Your task to perform on an android device: open a bookmark in the chrome app Image 0: 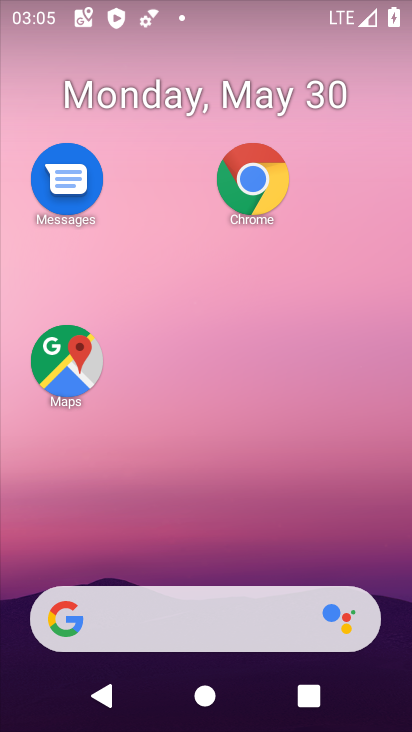
Step 0: click (246, 186)
Your task to perform on an android device: open a bookmark in the chrome app Image 1: 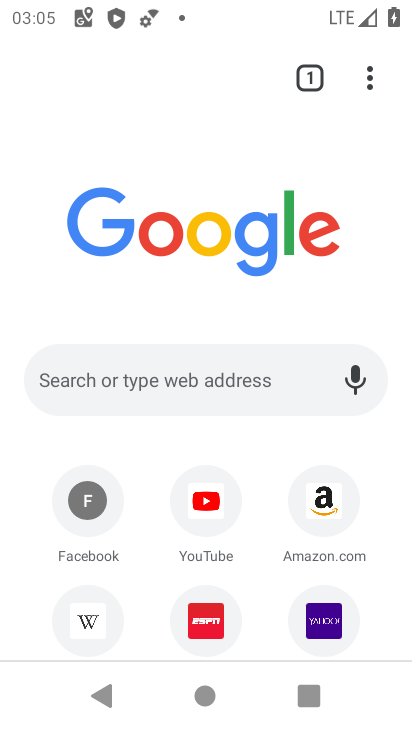
Step 1: click (367, 74)
Your task to perform on an android device: open a bookmark in the chrome app Image 2: 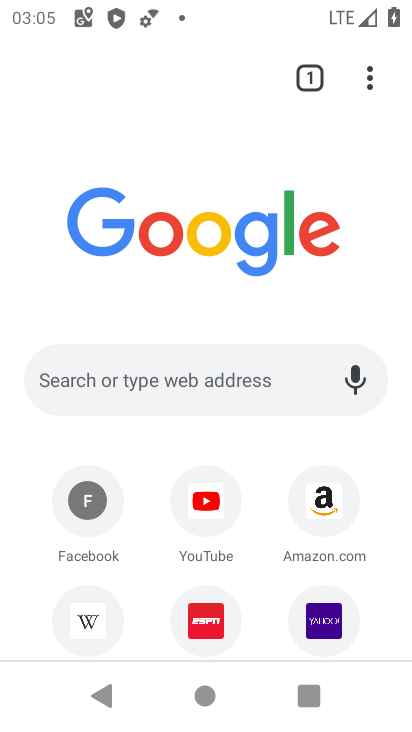
Step 2: click (369, 78)
Your task to perform on an android device: open a bookmark in the chrome app Image 3: 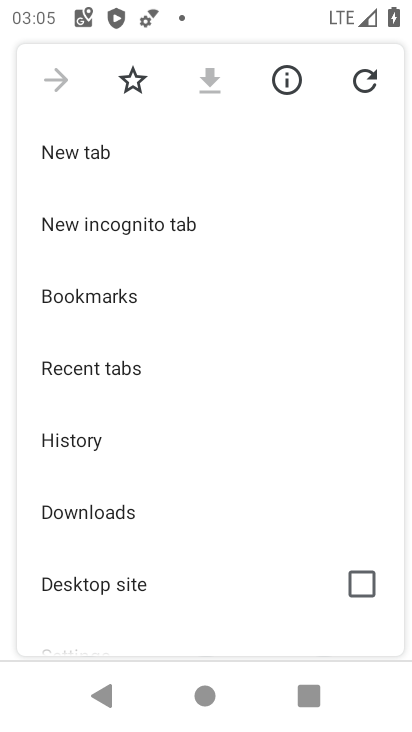
Step 3: click (88, 293)
Your task to perform on an android device: open a bookmark in the chrome app Image 4: 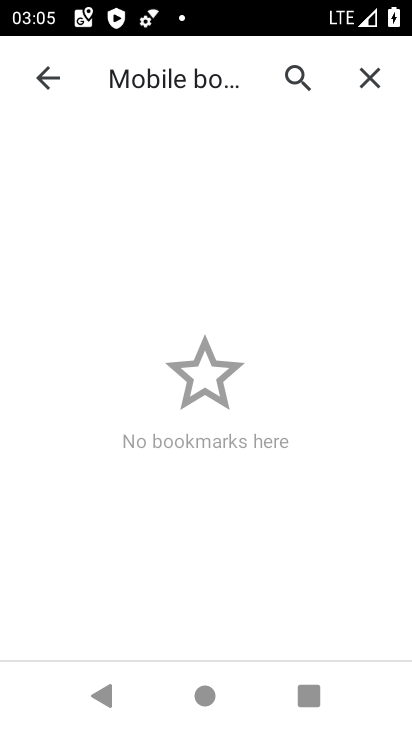
Step 4: task complete